Your task to perform on an android device: Show me recent news Image 0: 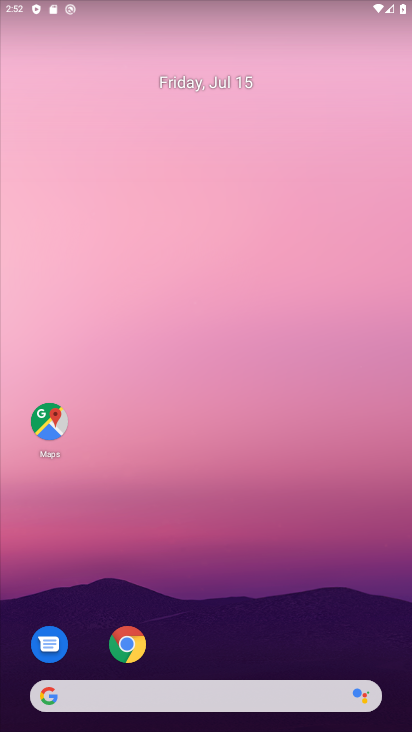
Step 0: click (176, 691)
Your task to perform on an android device: Show me recent news Image 1: 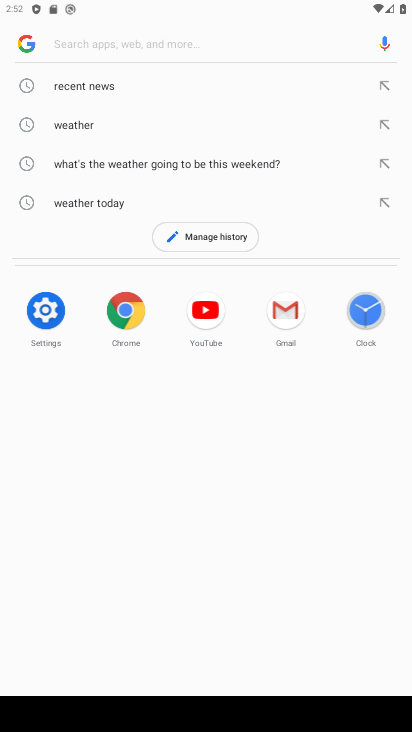
Step 1: click (113, 82)
Your task to perform on an android device: Show me recent news Image 2: 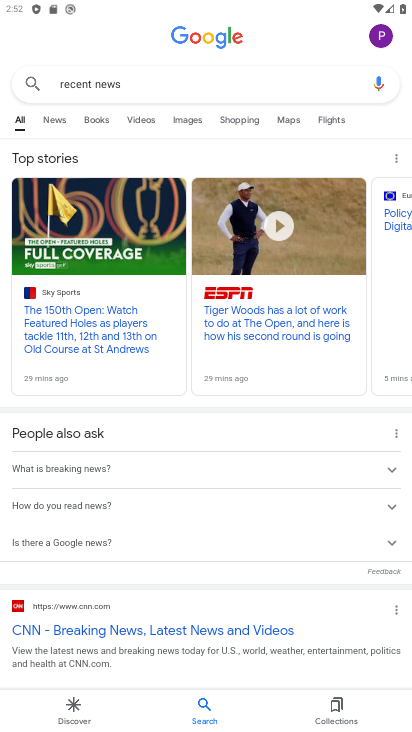
Step 2: task complete